Your task to perform on an android device: Turn off the flashlight Image 0: 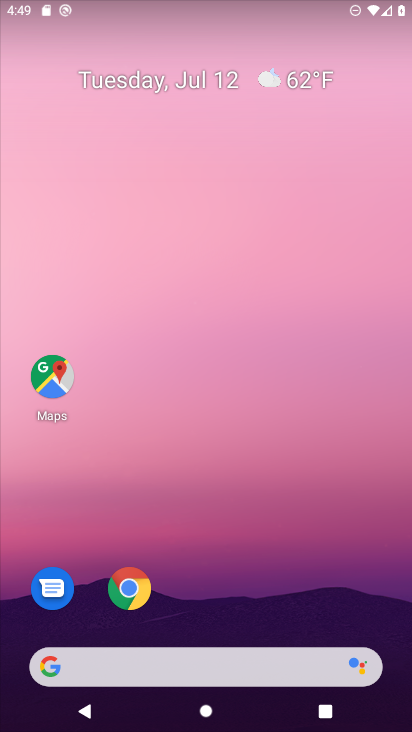
Step 0: drag from (227, 630) to (266, 114)
Your task to perform on an android device: Turn off the flashlight Image 1: 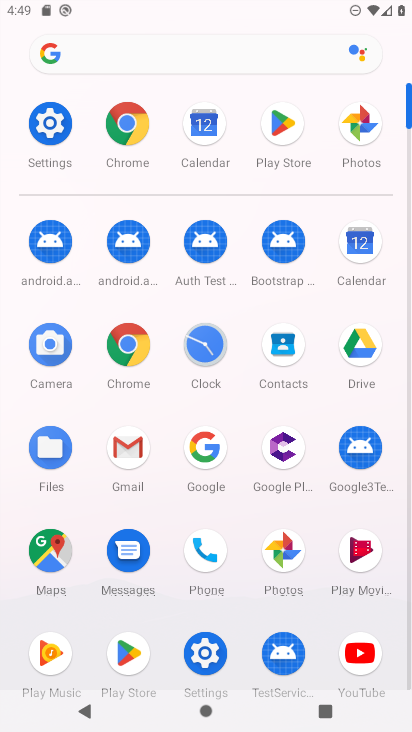
Step 1: click (207, 655)
Your task to perform on an android device: Turn off the flashlight Image 2: 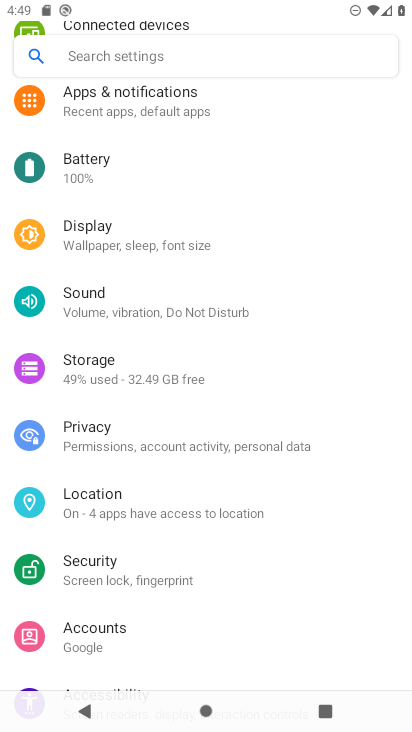
Step 2: drag from (172, 242) to (191, 391)
Your task to perform on an android device: Turn off the flashlight Image 3: 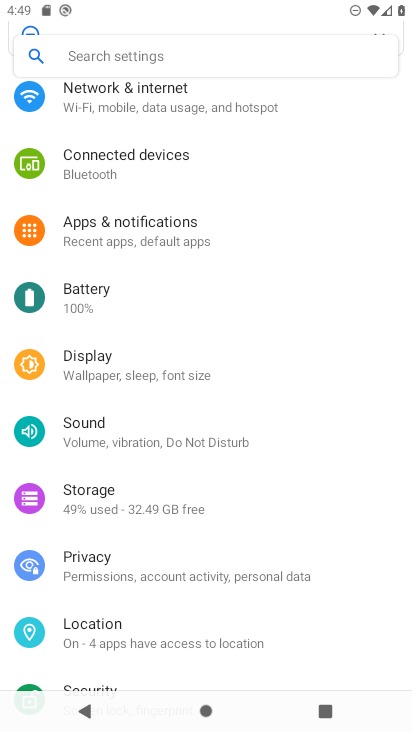
Step 3: click (241, 54)
Your task to perform on an android device: Turn off the flashlight Image 4: 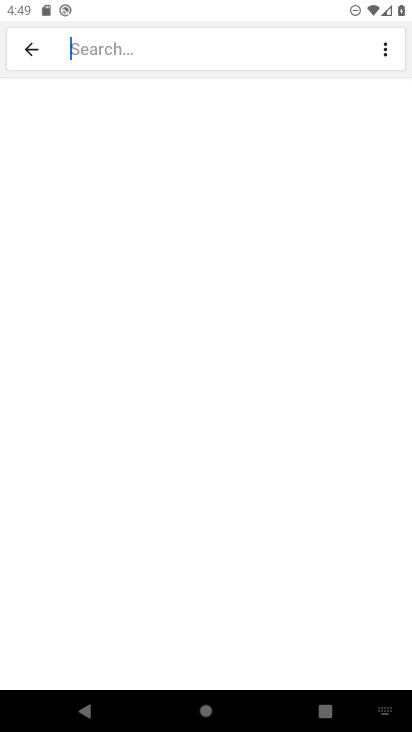
Step 4: type "flashlight"
Your task to perform on an android device: Turn off the flashlight Image 5: 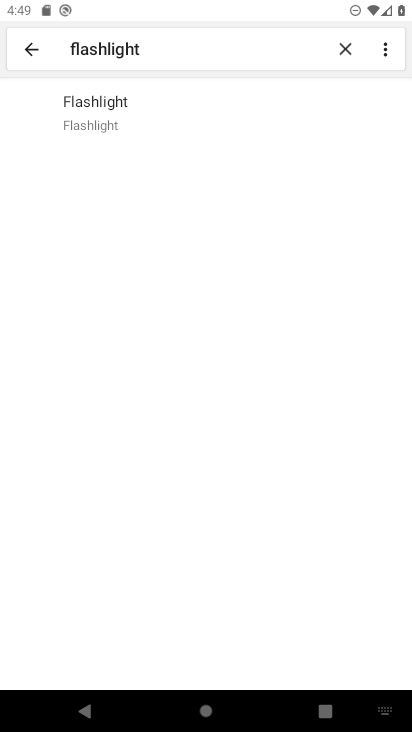
Step 5: click (124, 112)
Your task to perform on an android device: Turn off the flashlight Image 6: 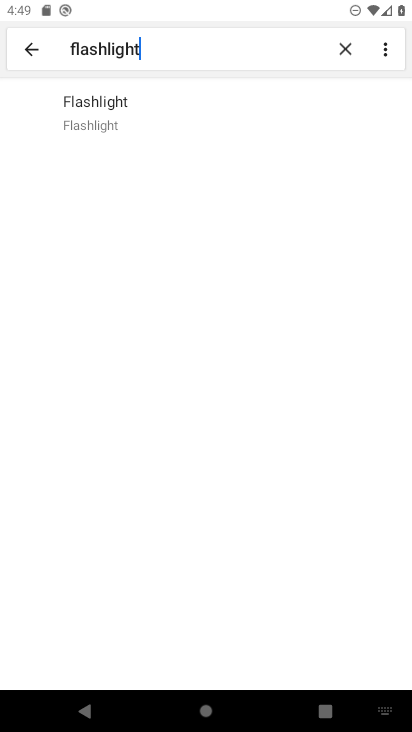
Step 6: click (125, 112)
Your task to perform on an android device: Turn off the flashlight Image 7: 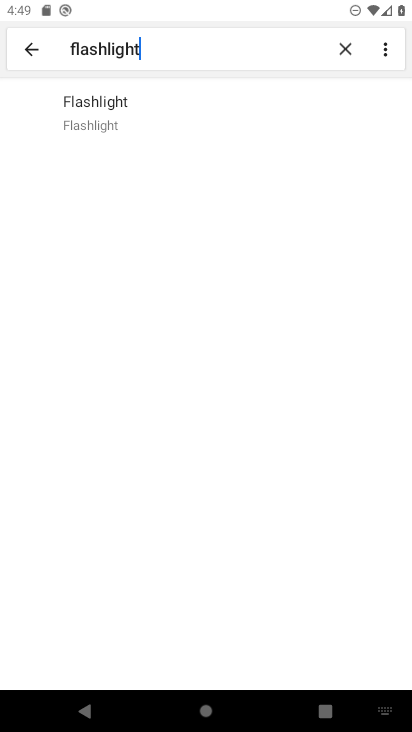
Step 7: task complete